Your task to perform on an android device: turn on sleep mode Image 0: 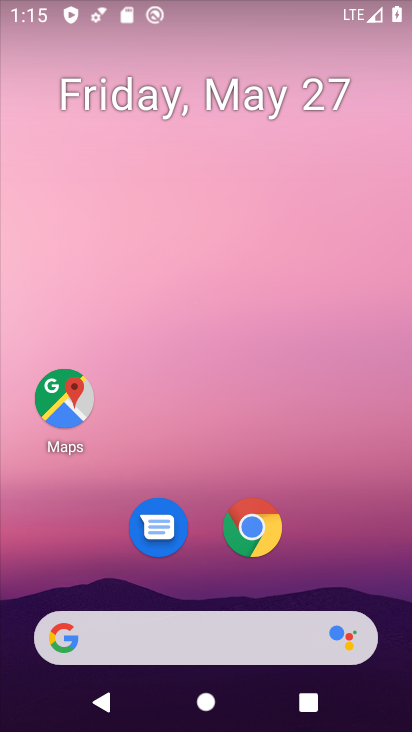
Step 0: drag from (246, 676) to (131, 45)
Your task to perform on an android device: turn on sleep mode Image 1: 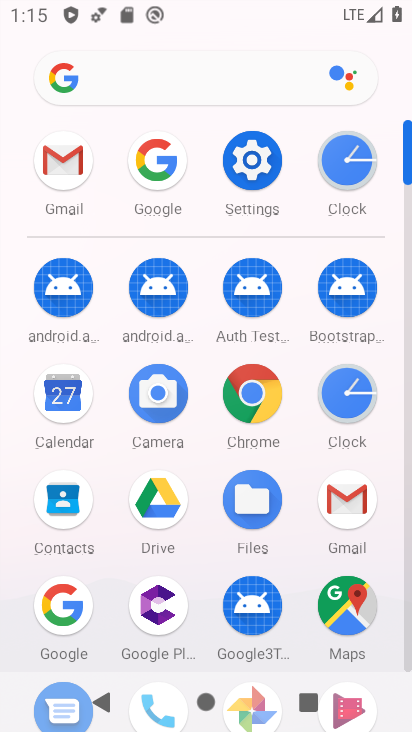
Step 1: click (256, 176)
Your task to perform on an android device: turn on sleep mode Image 2: 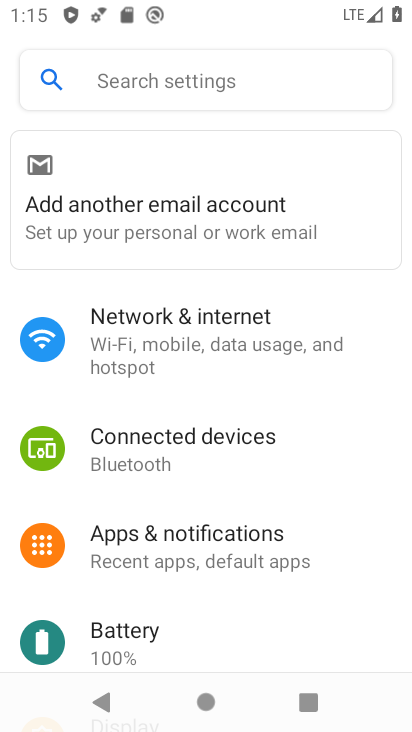
Step 2: drag from (242, 595) to (163, 46)
Your task to perform on an android device: turn on sleep mode Image 3: 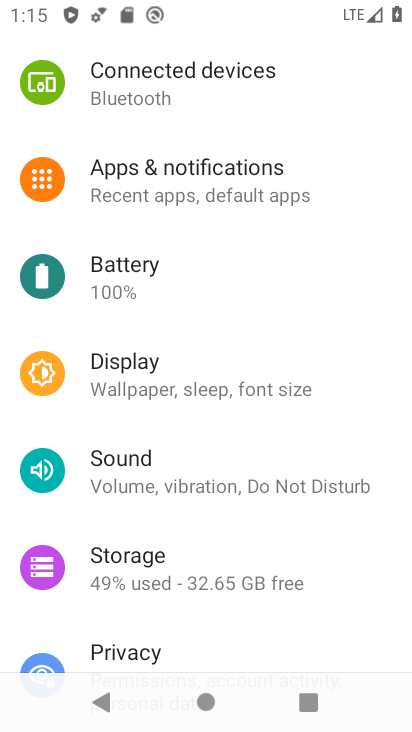
Step 3: click (266, 386)
Your task to perform on an android device: turn on sleep mode Image 4: 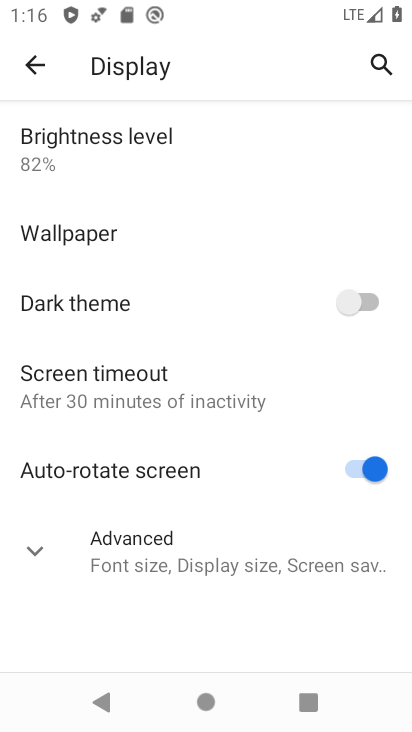
Step 4: task complete